Your task to perform on an android device: Search for pizza restaurants on Maps Image 0: 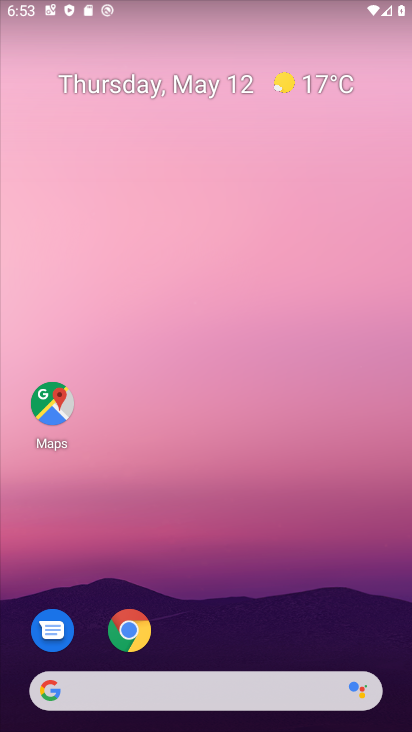
Step 0: drag from (331, 605) to (220, 101)
Your task to perform on an android device: Search for pizza restaurants on Maps Image 1: 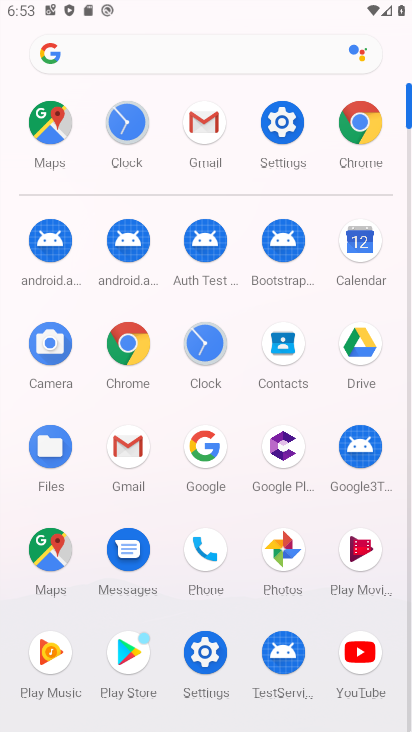
Step 1: click (45, 537)
Your task to perform on an android device: Search for pizza restaurants on Maps Image 2: 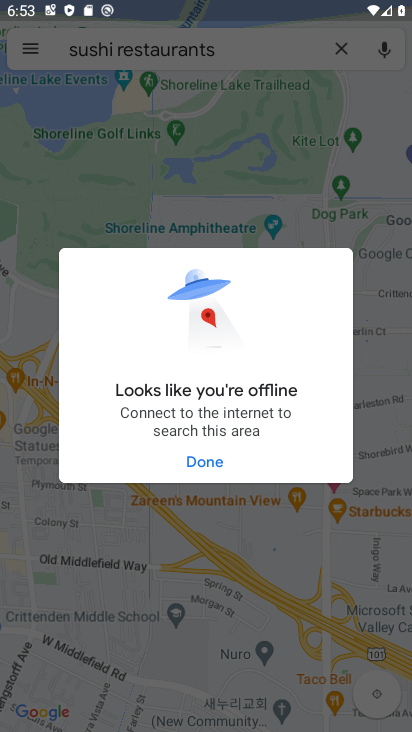
Step 2: press back button
Your task to perform on an android device: Search for pizza restaurants on Maps Image 3: 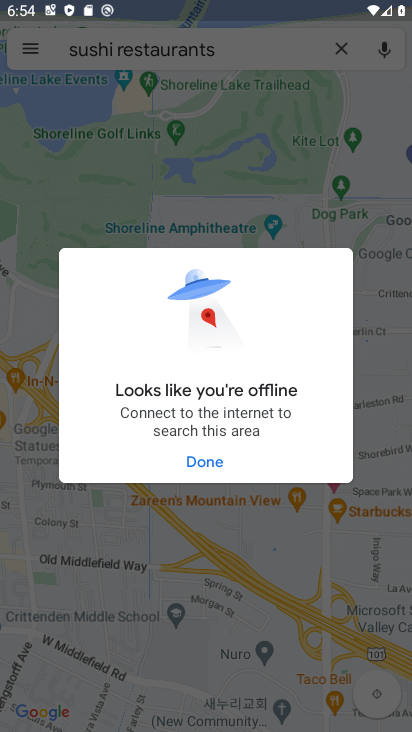
Step 3: click (348, 43)
Your task to perform on an android device: Search for pizza restaurants on Maps Image 4: 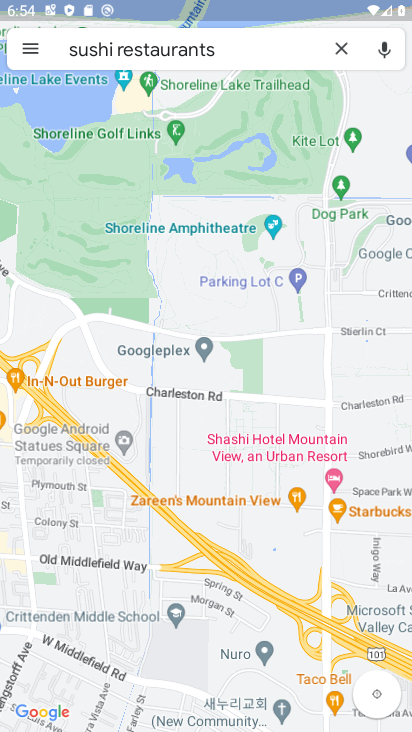
Step 4: click (332, 44)
Your task to perform on an android device: Search for pizza restaurants on Maps Image 5: 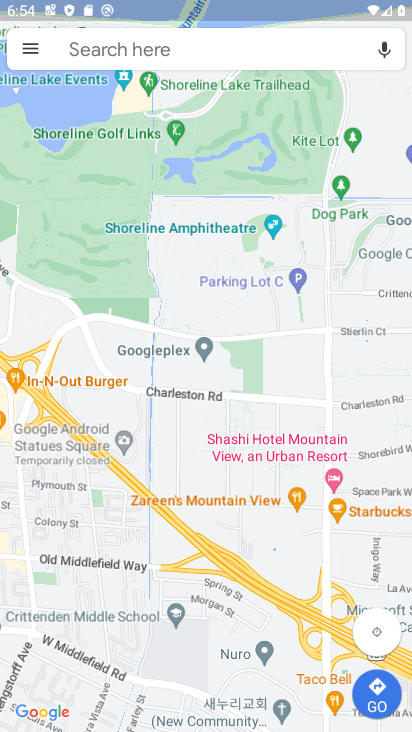
Step 5: click (200, 45)
Your task to perform on an android device: Search for pizza restaurants on Maps Image 6: 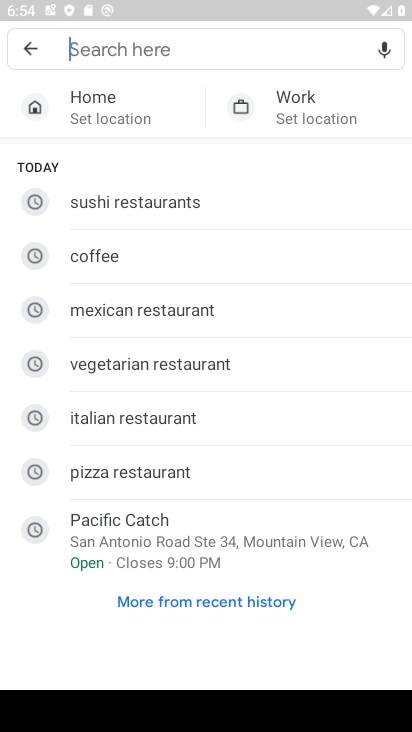
Step 6: click (151, 478)
Your task to perform on an android device: Search for pizza restaurants on Maps Image 7: 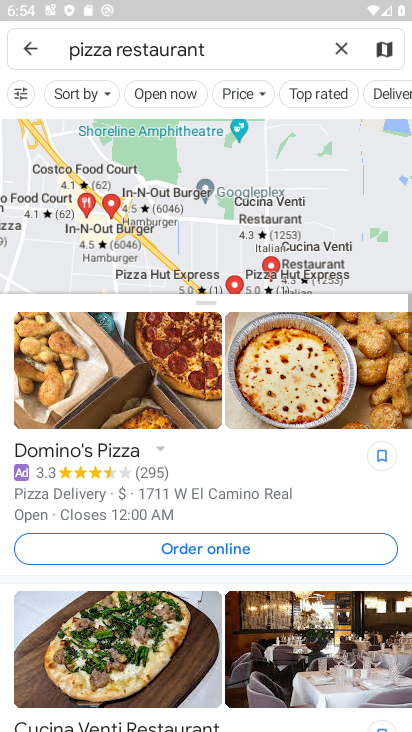
Step 7: task complete